Your task to perform on an android device: change the clock display to show seconds Image 0: 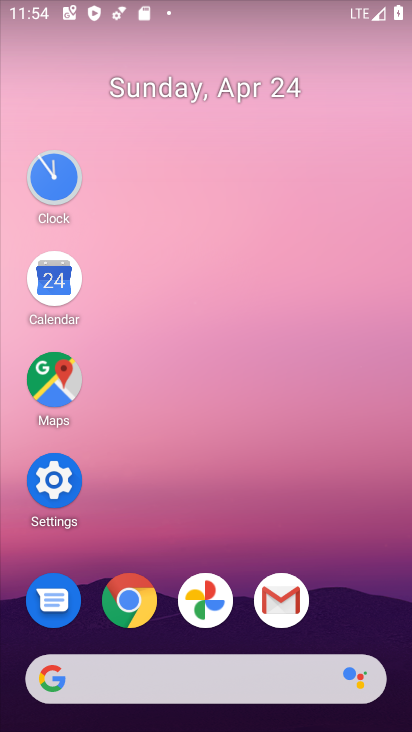
Step 0: click (47, 173)
Your task to perform on an android device: change the clock display to show seconds Image 1: 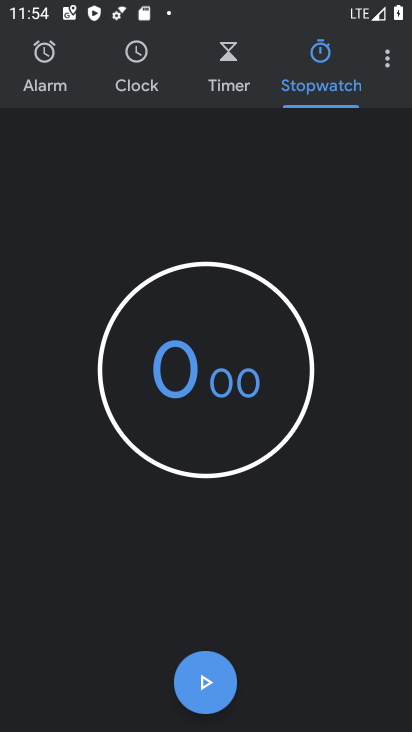
Step 1: click (381, 55)
Your task to perform on an android device: change the clock display to show seconds Image 2: 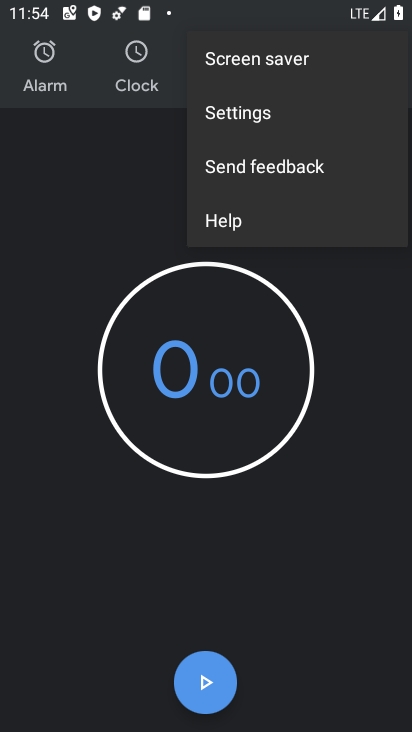
Step 2: click (254, 113)
Your task to perform on an android device: change the clock display to show seconds Image 3: 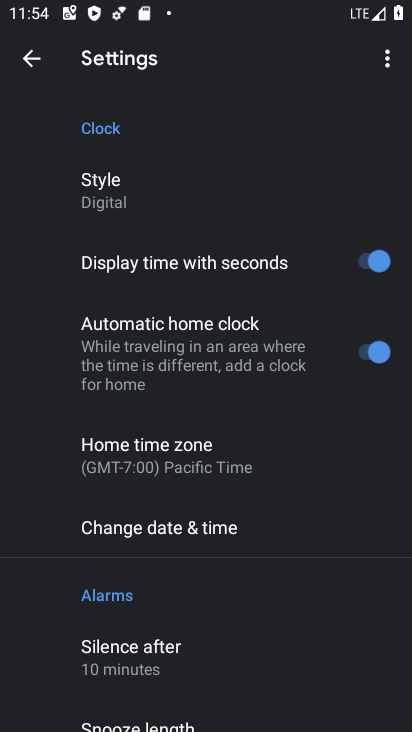
Step 3: task complete